Your task to perform on an android device: find which apps use the phone's location Image 0: 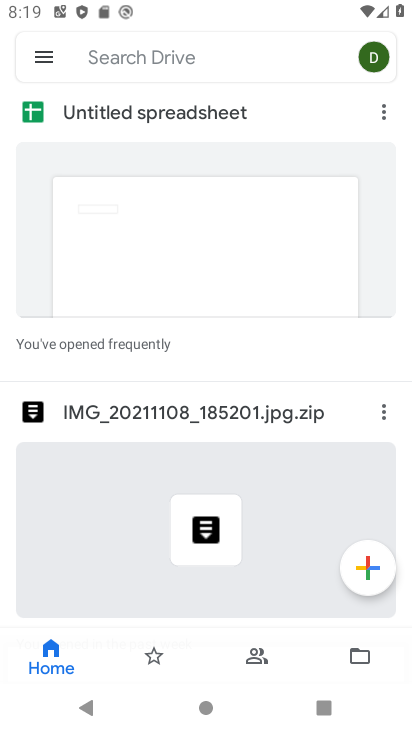
Step 0: press home button
Your task to perform on an android device: find which apps use the phone's location Image 1: 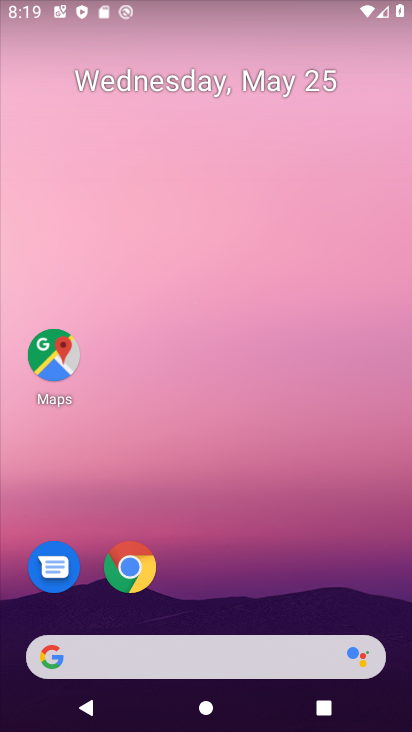
Step 1: drag from (341, 608) to (341, 3)
Your task to perform on an android device: find which apps use the phone's location Image 2: 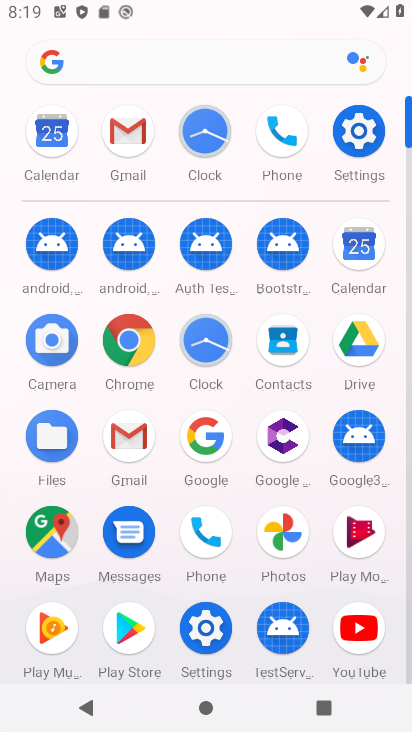
Step 2: click (339, 129)
Your task to perform on an android device: find which apps use the phone's location Image 3: 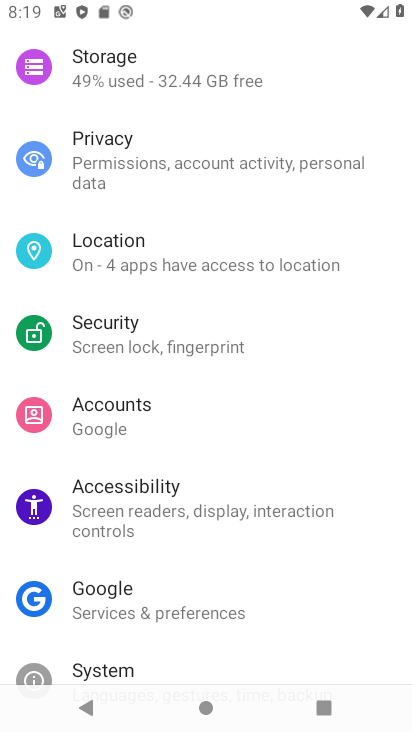
Step 3: click (174, 248)
Your task to perform on an android device: find which apps use the phone's location Image 4: 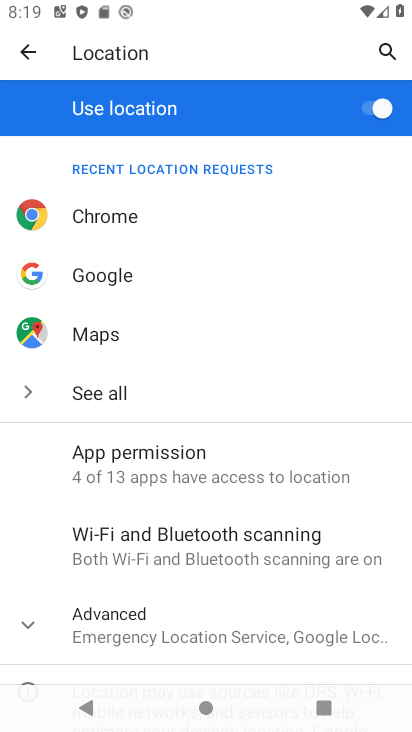
Step 4: task complete